Your task to perform on an android device: change your default location settings in chrome Image 0: 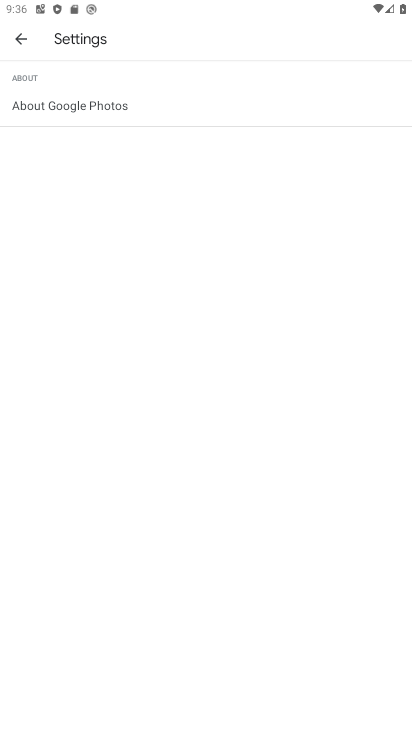
Step 0: drag from (212, 663) to (250, 324)
Your task to perform on an android device: change your default location settings in chrome Image 1: 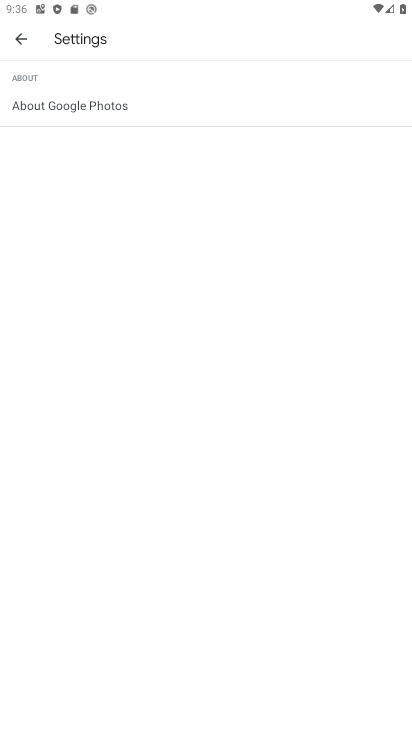
Step 1: press home button
Your task to perform on an android device: change your default location settings in chrome Image 2: 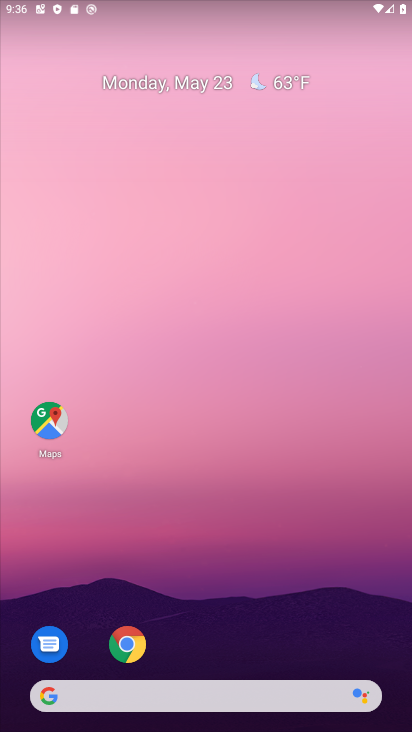
Step 2: click (125, 645)
Your task to perform on an android device: change your default location settings in chrome Image 3: 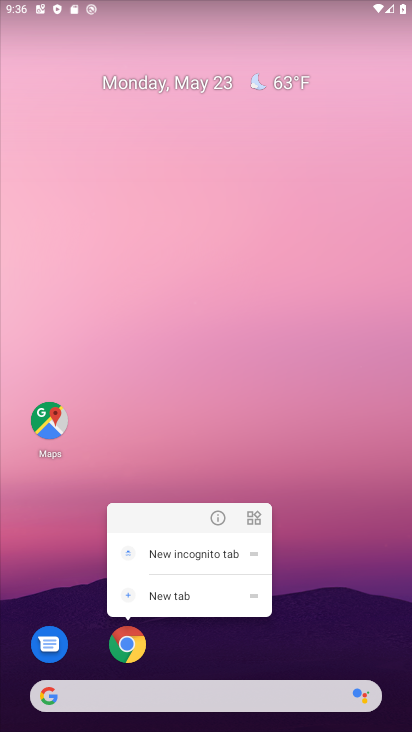
Step 3: click (121, 643)
Your task to perform on an android device: change your default location settings in chrome Image 4: 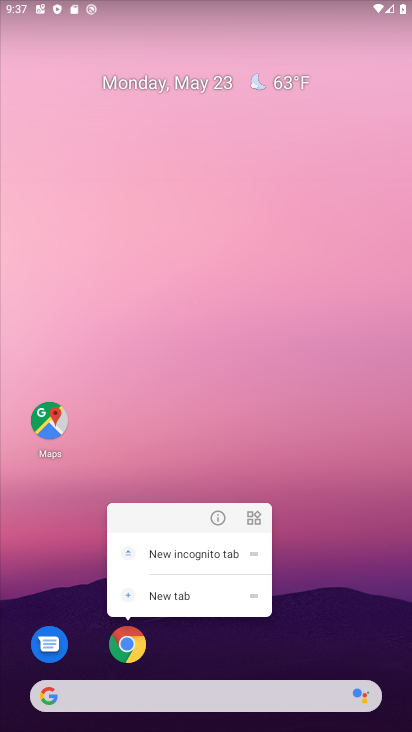
Step 4: click (132, 642)
Your task to perform on an android device: change your default location settings in chrome Image 5: 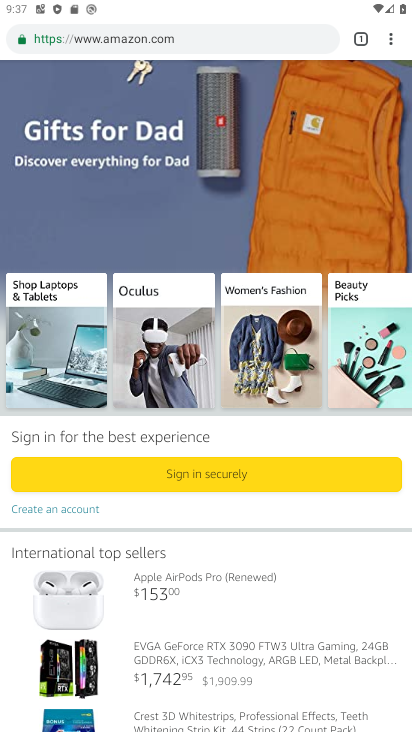
Step 5: click (393, 35)
Your task to perform on an android device: change your default location settings in chrome Image 6: 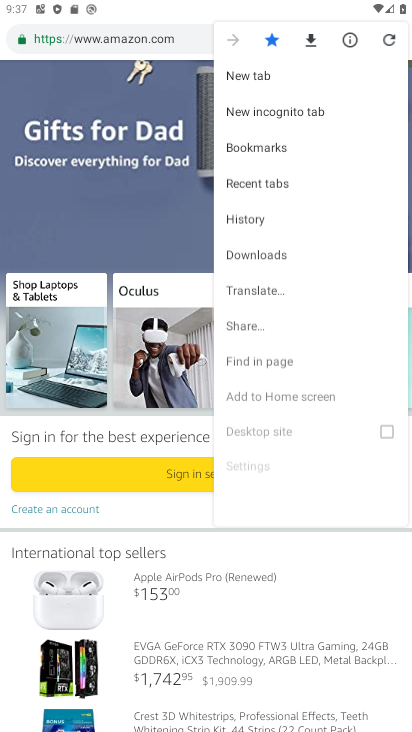
Step 6: click (387, 35)
Your task to perform on an android device: change your default location settings in chrome Image 7: 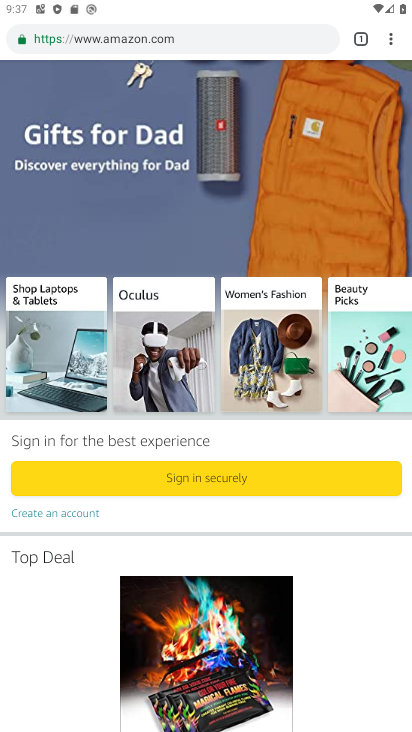
Step 7: click (393, 36)
Your task to perform on an android device: change your default location settings in chrome Image 8: 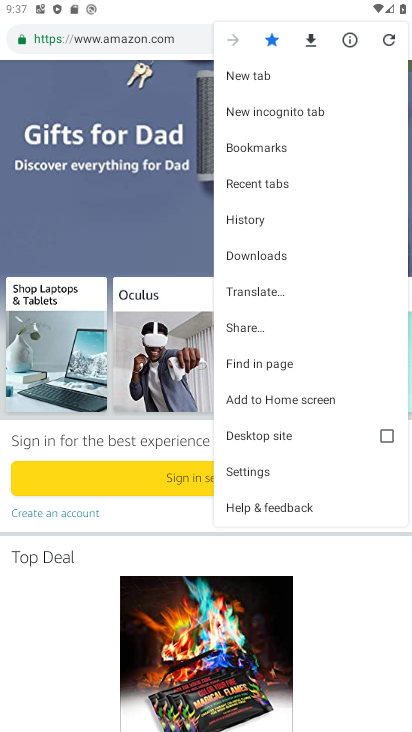
Step 8: click (277, 466)
Your task to perform on an android device: change your default location settings in chrome Image 9: 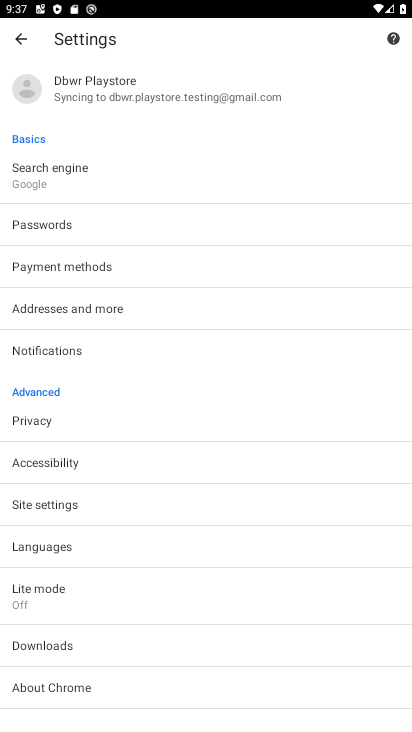
Step 9: click (88, 499)
Your task to perform on an android device: change your default location settings in chrome Image 10: 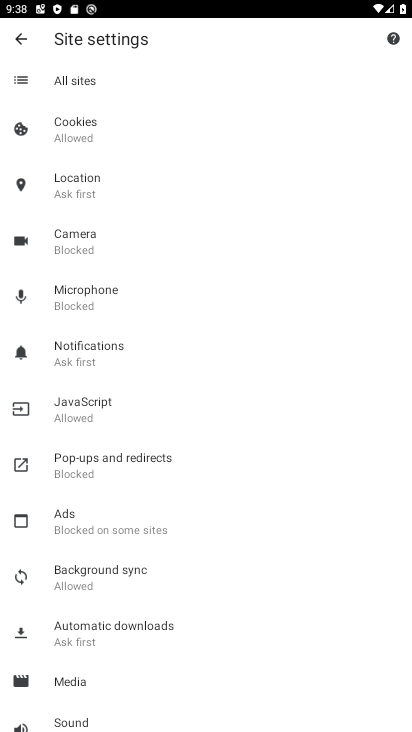
Step 10: click (105, 189)
Your task to perform on an android device: change your default location settings in chrome Image 11: 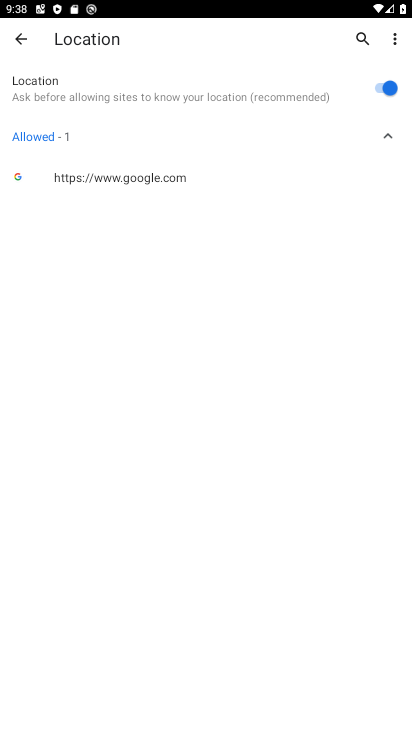
Step 11: click (385, 86)
Your task to perform on an android device: change your default location settings in chrome Image 12: 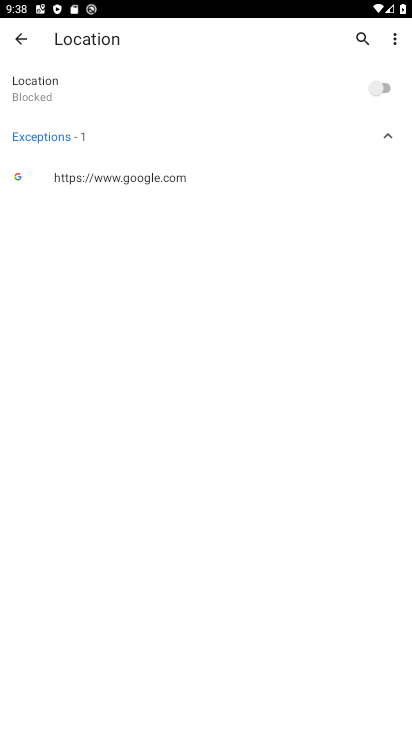
Step 12: task complete